Your task to perform on an android device: Open the map Image 0: 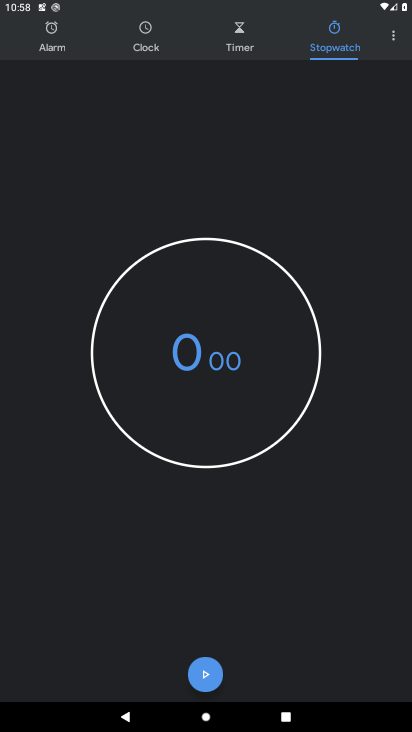
Step 0: press home button
Your task to perform on an android device: Open the map Image 1: 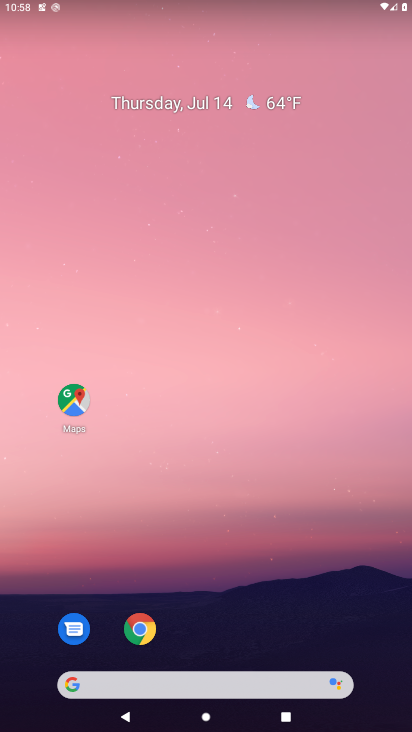
Step 1: click (78, 404)
Your task to perform on an android device: Open the map Image 2: 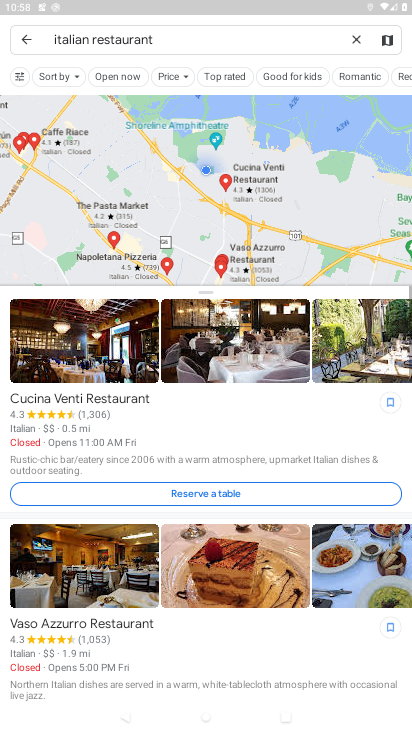
Step 2: click (20, 39)
Your task to perform on an android device: Open the map Image 3: 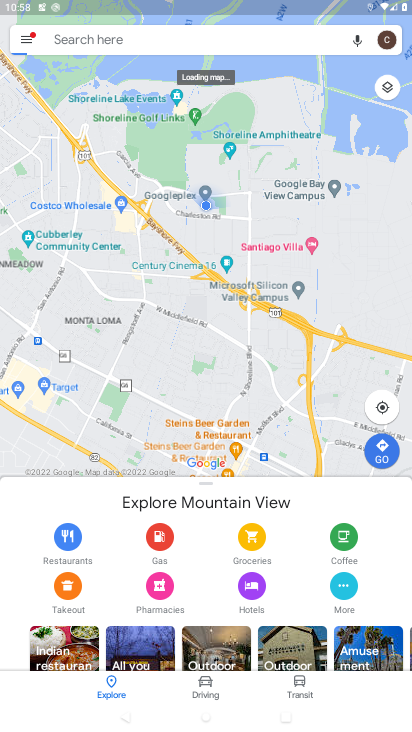
Step 3: task complete